Your task to perform on an android device: Go to privacy settings Image 0: 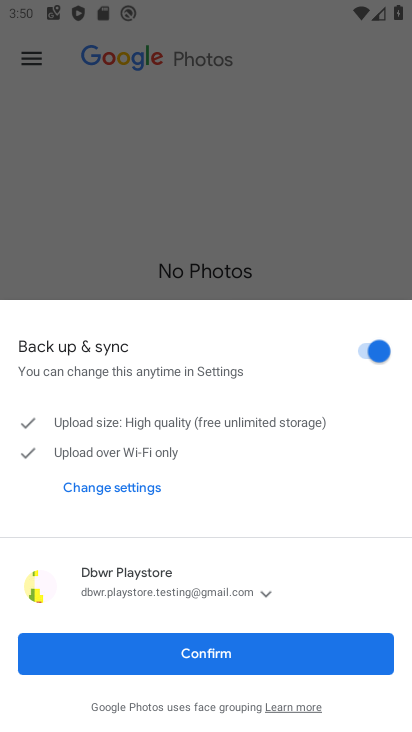
Step 0: press home button
Your task to perform on an android device: Go to privacy settings Image 1: 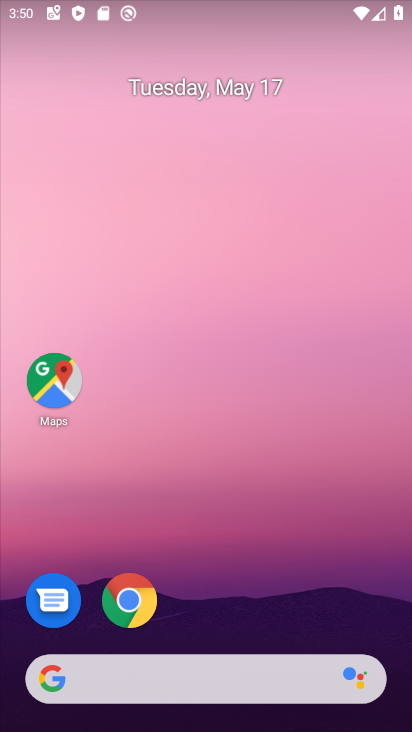
Step 1: drag from (179, 617) to (168, 9)
Your task to perform on an android device: Go to privacy settings Image 2: 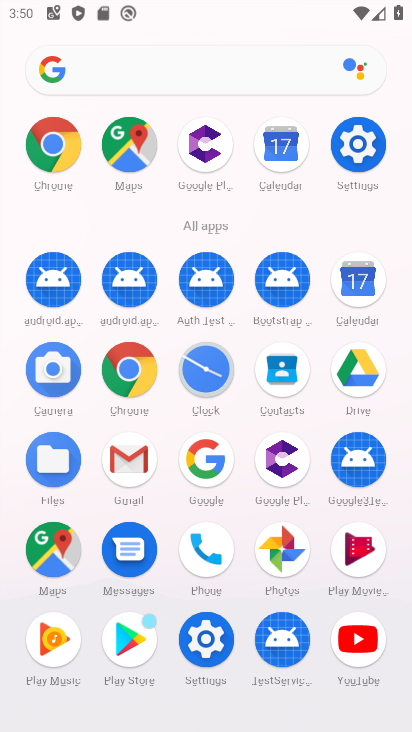
Step 2: click (357, 156)
Your task to perform on an android device: Go to privacy settings Image 3: 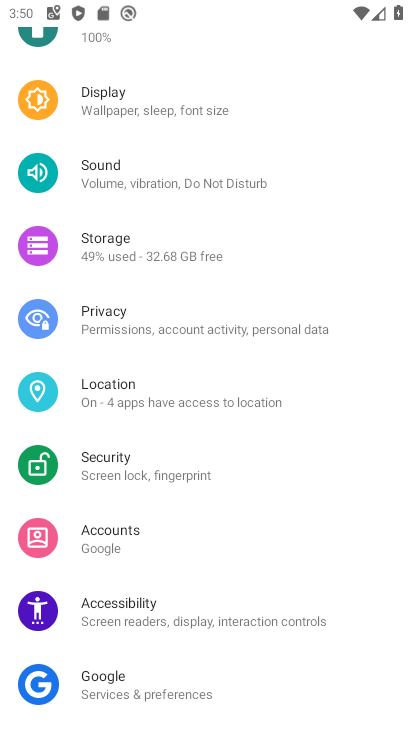
Step 3: drag from (170, 625) to (216, 276)
Your task to perform on an android device: Go to privacy settings Image 4: 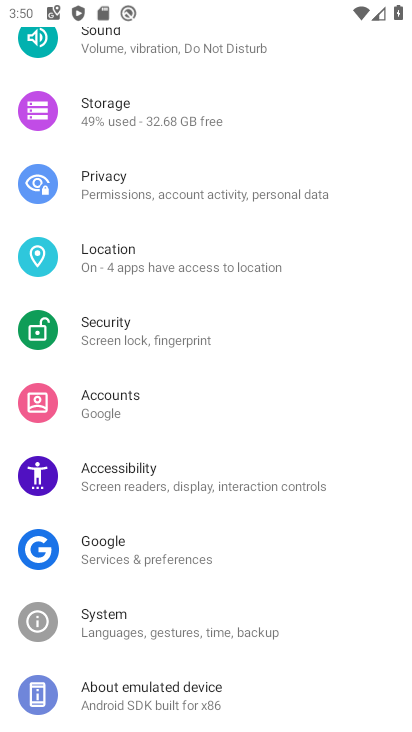
Step 4: click (128, 174)
Your task to perform on an android device: Go to privacy settings Image 5: 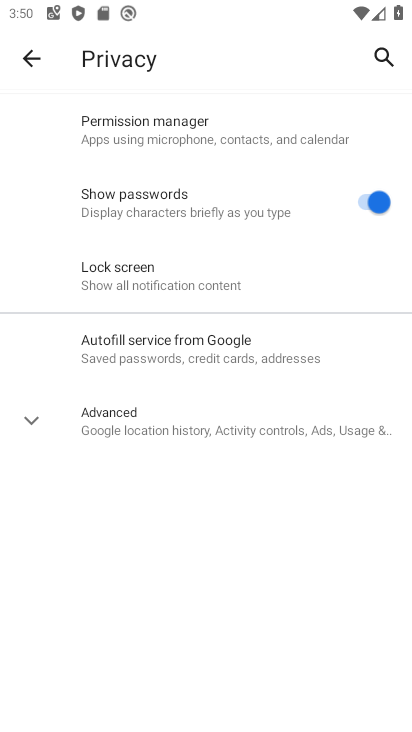
Step 5: task complete